Your task to perform on an android device: turn off javascript in the chrome app Image 0: 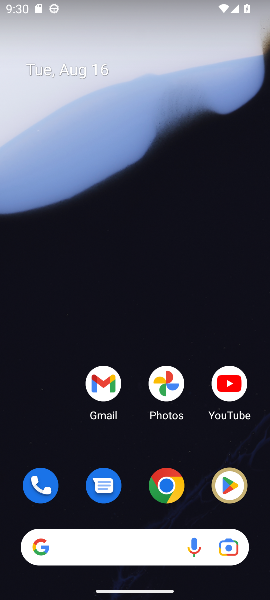
Step 0: click (165, 488)
Your task to perform on an android device: turn off javascript in the chrome app Image 1: 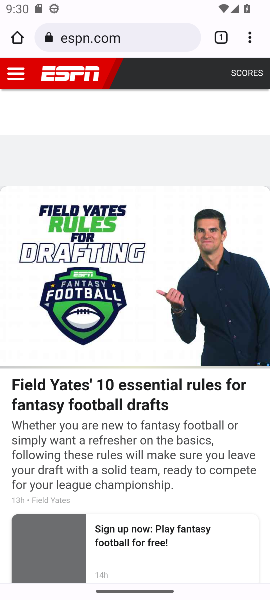
Step 1: click (245, 30)
Your task to perform on an android device: turn off javascript in the chrome app Image 2: 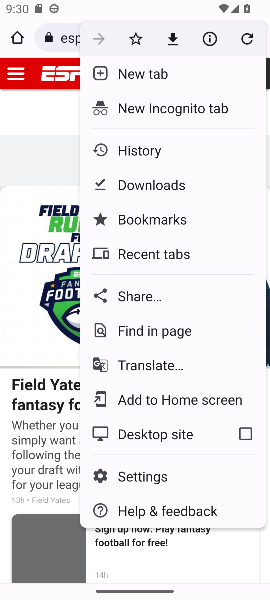
Step 2: click (155, 471)
Your task to perform on an android device: turn off javascript in the chrome app Image 3: 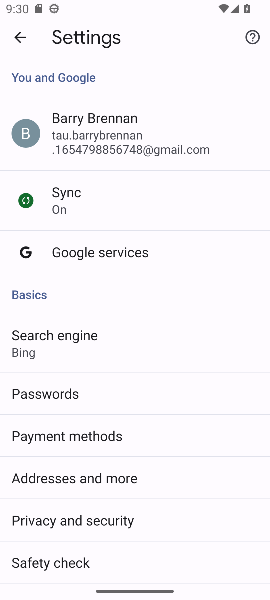
Step 3: drag from (121, 477) to (123, 215)
Your task to perform on an android device: turn off javascript in the chrome app Image 4: 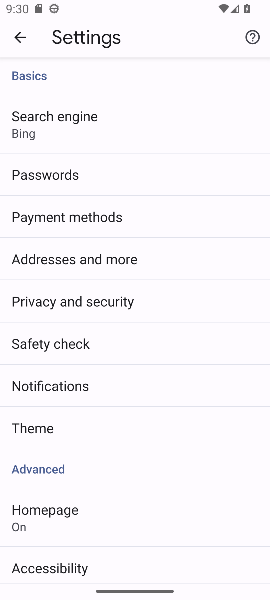
Step 4: drag from (141, 468) to (121, 169)
Your task to perform on an android device: turn off javascript in the chrome app Image 5: 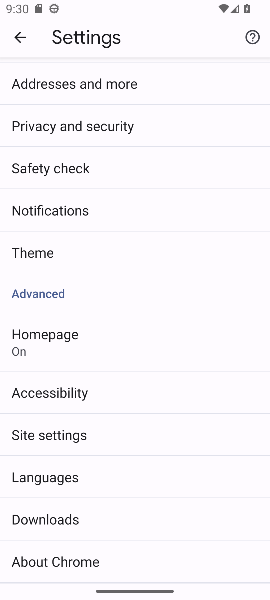
Step 5: click (63, 442)
Your task to perform on an android device: turn off javascript in the chrome app Image 6: 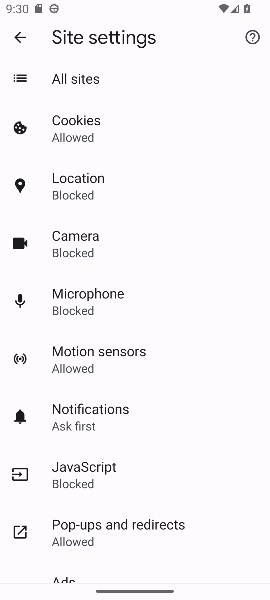
Step 6: click (112, 481)
Your task to perform on an android device: turn off javascript in the chrome app Image 7: 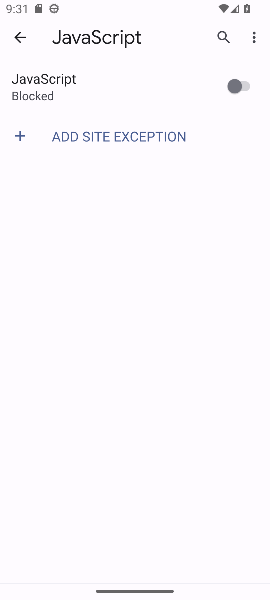
Step 7: task complete